Your task to perform on an android device: Is it going to rain this weekend? Image 0: 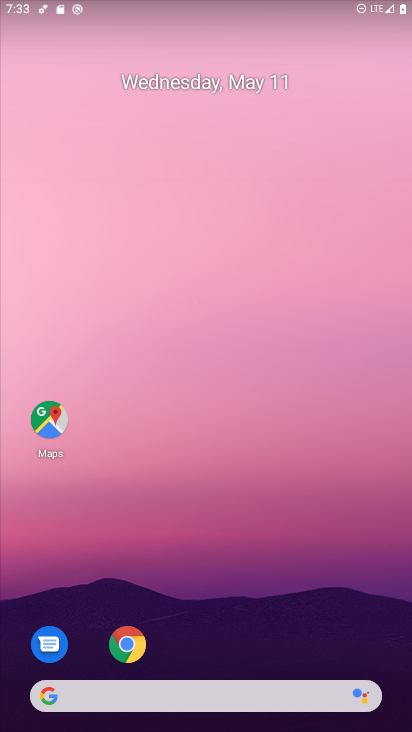
Step 0: click (180, 697)
Your task to perform on an android device: Is it going to rain this weekend? Image 1: 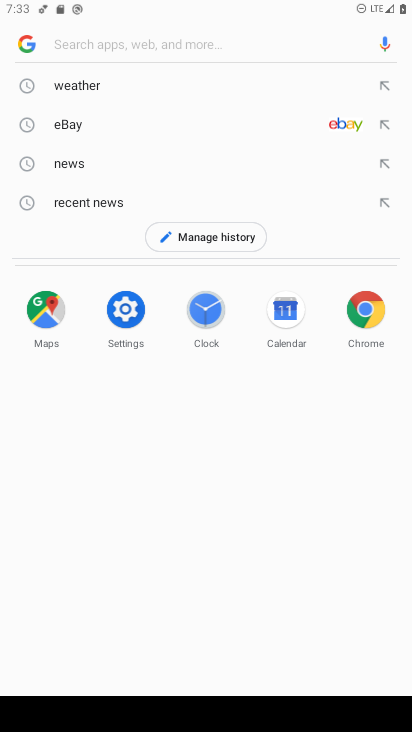
Step 1: click (67, 83)
Your task to perform on an android device: Is it going to rain this weekend? Image 2: 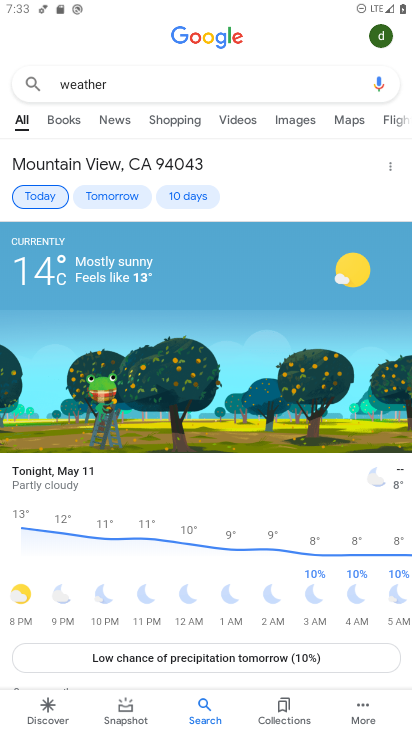
Step 2: click (174, 197)
Your task to perform on an android device: Is it going to rain this weekend? Image 3: 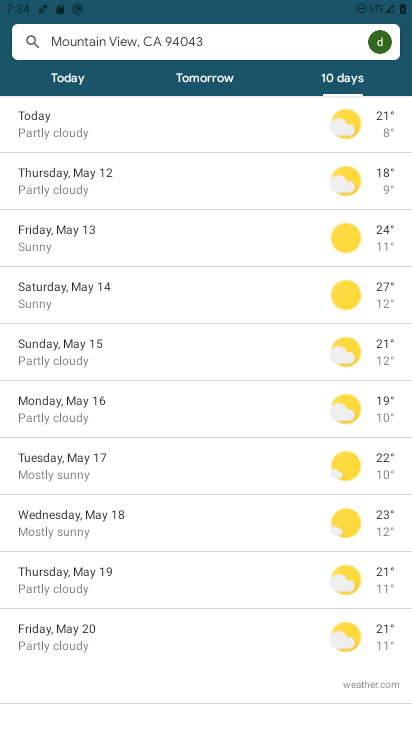
Step 3: task complete